Your task to perform on an android device: check data usage Image 0: 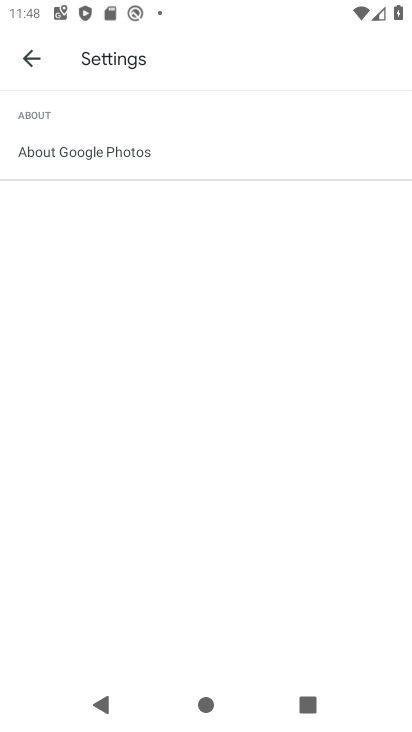
Step 0: press home button
Your task to perform on an android device: check data usage Image 1: 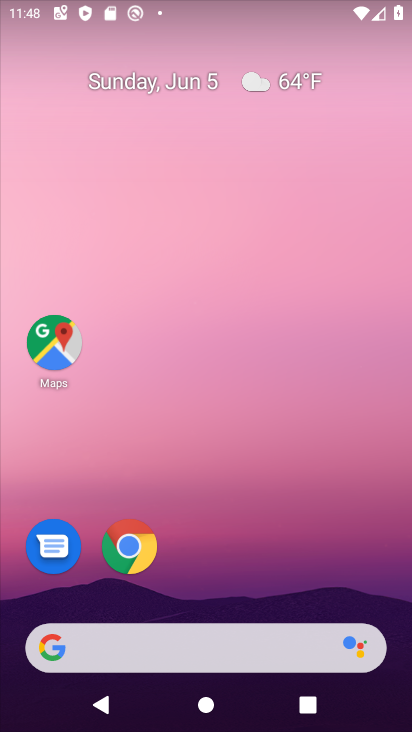
Step 1: drag from (243, 528) to (248, 226)
Your task to perform on an android device: check data usage Image 2: 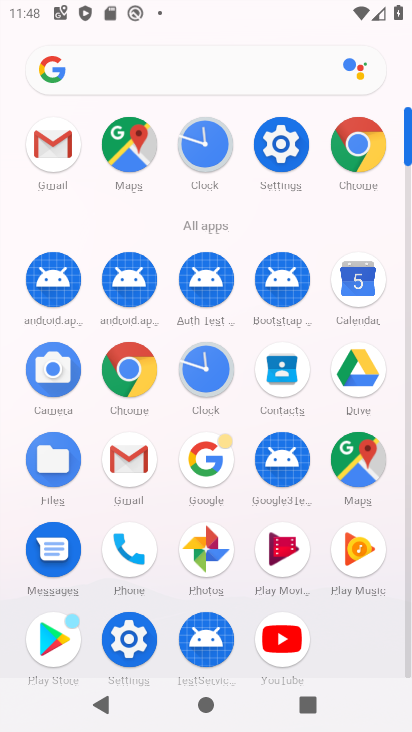
Step 2: click (274, 140)
Your task to perform on an android device: check data usage Image 3: 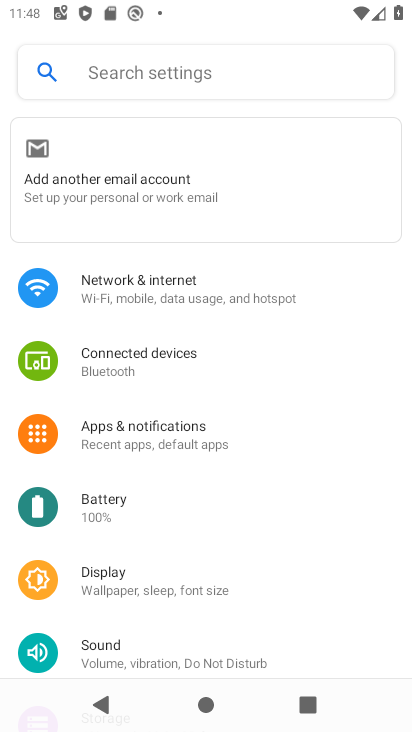
Step 3: click (183, 284)
Your task to perform on an android device: check data usage Image 4: 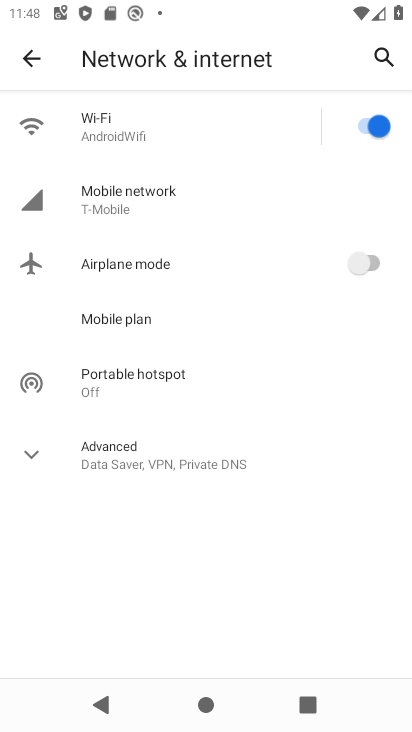
Step 4: click (165, 203)
Your task to perform on an android device: check data usage Image 5: 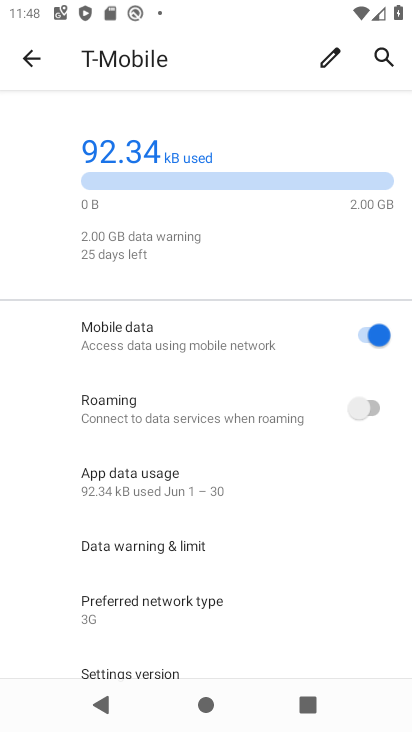
Step 5: task complete